Your task to perform on an android device: Go to internet settings Image 0: 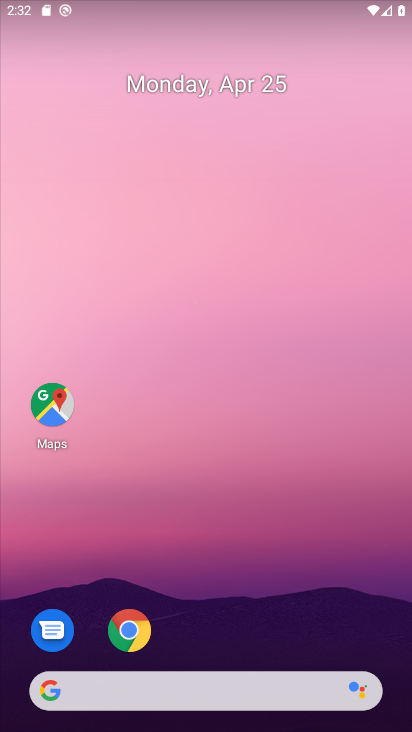
Step 0: drag from (143, 392) to (74, 99)
Your task to perform on an android device: Go to internet settings Image 1: 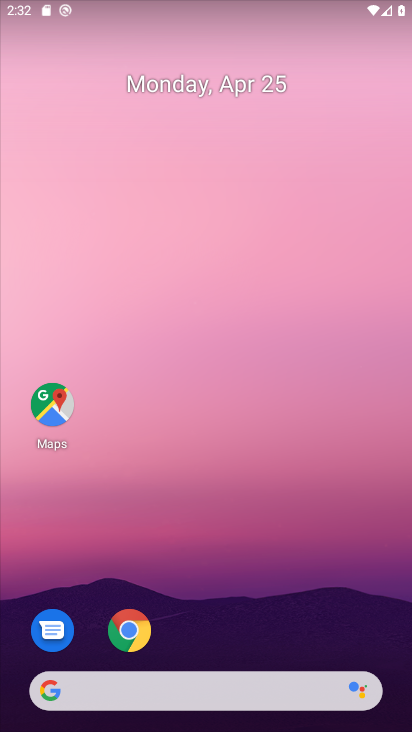
Step 1: drag from (245, 508) to (32, 0)
Your task to perform on an android device: Go to internet settings Image 2: 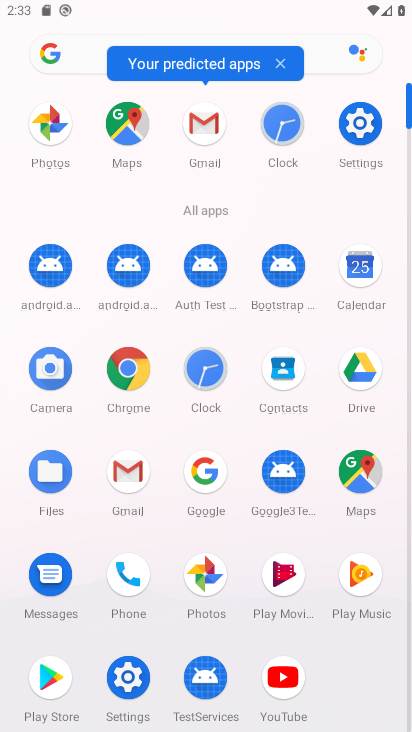
Step 2: click (352, 129)
Your task to perform on an android device: Go to internet settings Image 3: 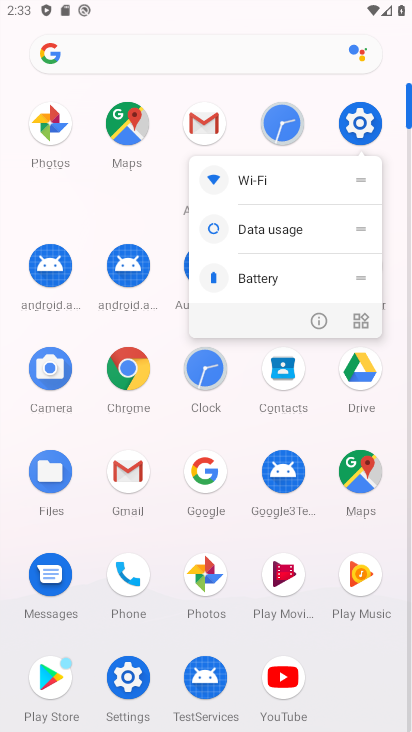
Step 3: click (361, 113)
Your task to perform on an android device: Go to internet settings Image 4: 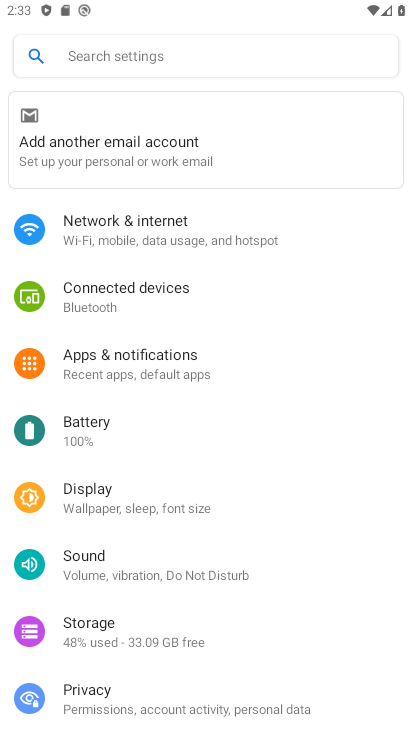
Step 4: click (160, 228)
Your task to perform on an android device: Go to internet settings Image 5: 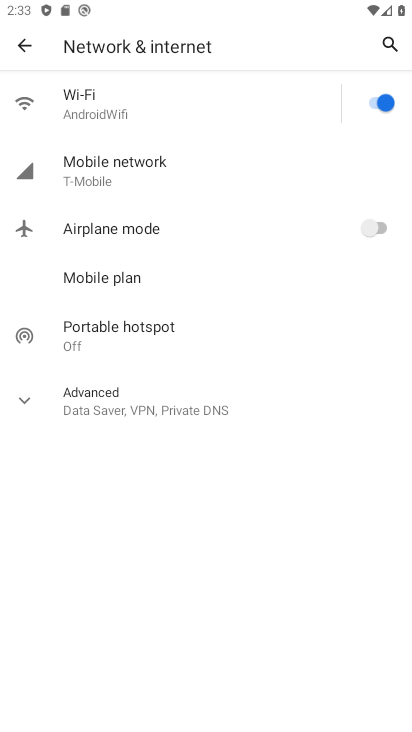
Step 5: task complete